Your task to perform on an android device: snooze an email in the gmail app Image 0: 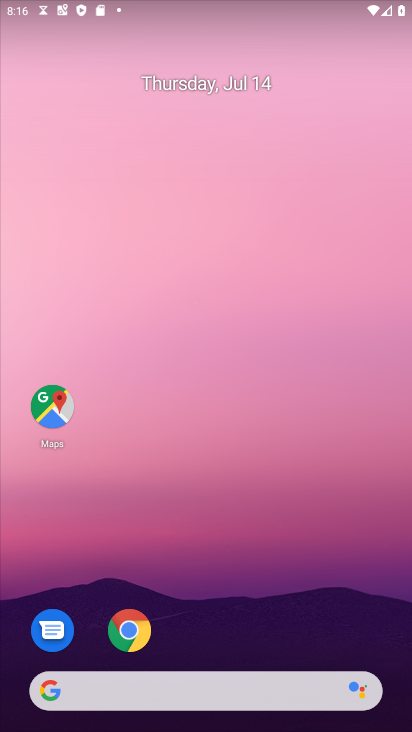
Step 0: drag from (282, 606) to (349, 0)
Your task to perform on an android device: snooze an email in the gmail app Image 1: 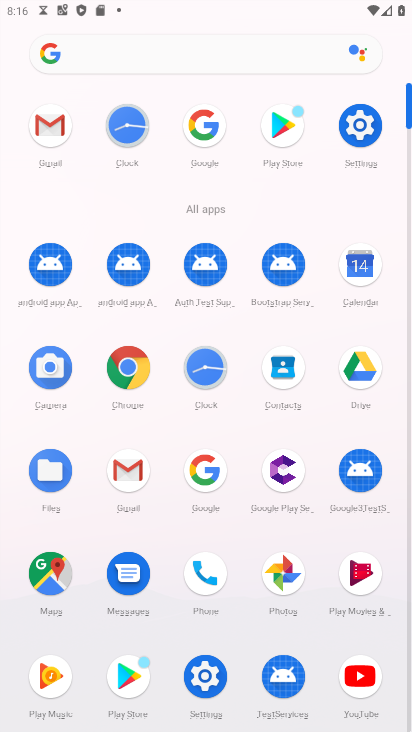
Step 1: click (55, 136)
Your task to perform on an android device: snooze an email in the gmail app Image 2: 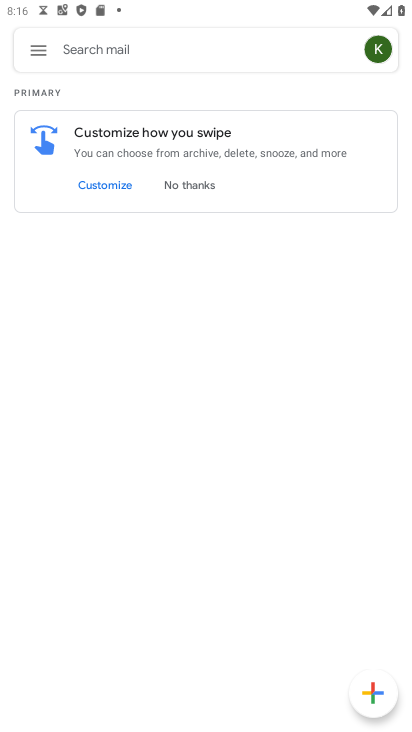
Step 2: click (26, 35)
Your task to perform on an android device: snooze an email in the gmail app Image 3: 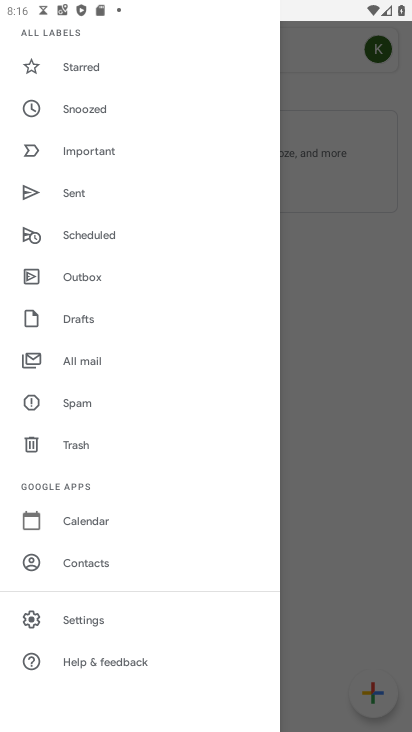
Step 3: click (91, 364)
Your task to perform on an android device: snooze an email in the gmail app Image 4: 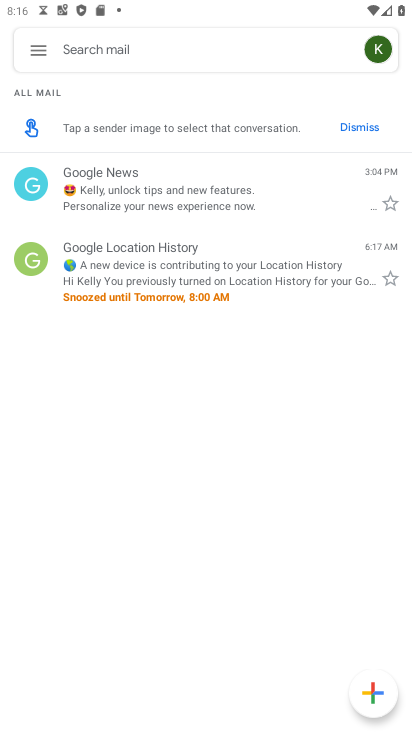
Step 4: click (174, 193)
Your task to perform on an android device: snooze an email in the gmail app Image 5: 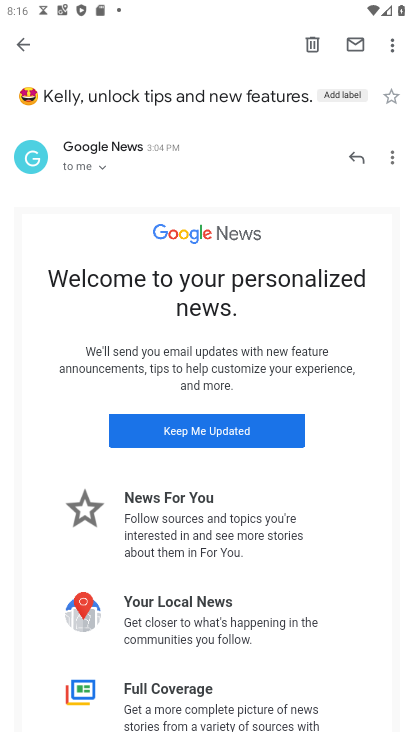
Step 5: click (393, 155)
Your task to perform on an android device: snooze an email in the gmail app Image 6: 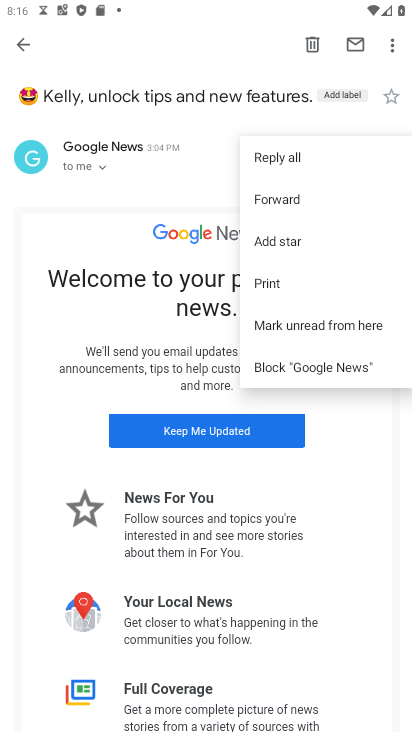
Step 6: click (392, 53)
Your task to perform on an android device: snooze an email in the gmail app Image 7: 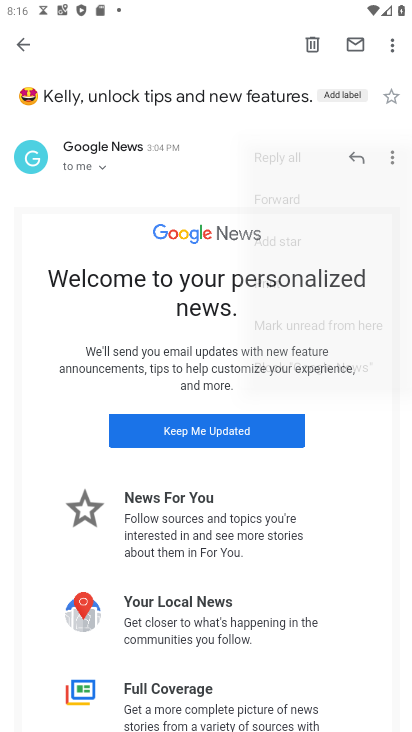
Step 7: click (392, 53)
Your task to perform on an android device: snooze an email in the gmail app Image 8: 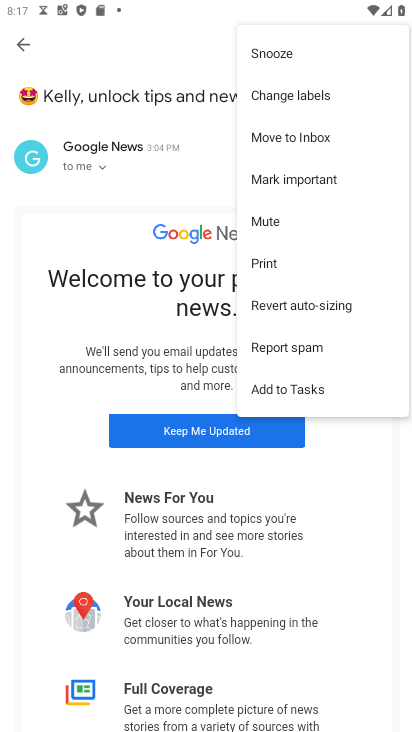
Step 8: click (318, 57)
Your task to perform on an android device: snooze an email in the gmail app Image 9: 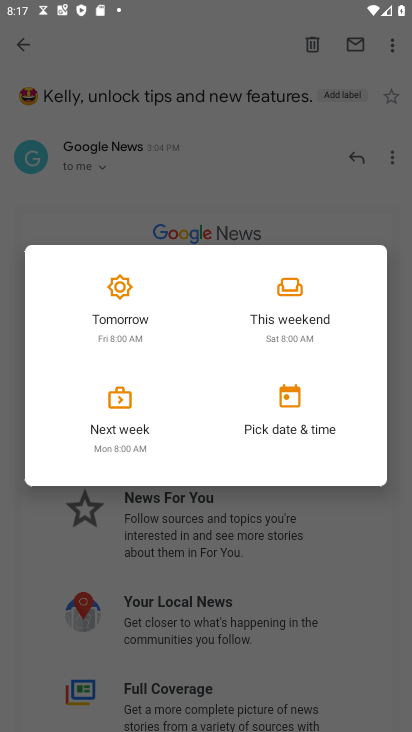
Step 9: click (116, 322)
Your task to perform on an android device: snooze an email in the gmail app Image 10: 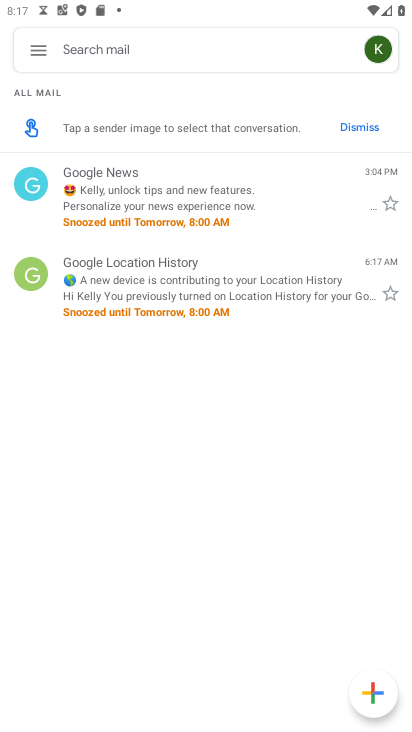
Step 10: task complete